Your task to perform on an android device: Go to Amazon Image 0: 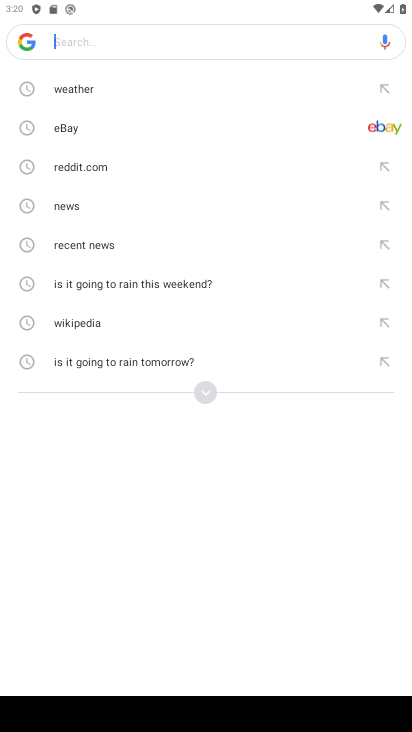
Step 0: press home button
Your task to perform on an android device: Go to Amazon Image 1: 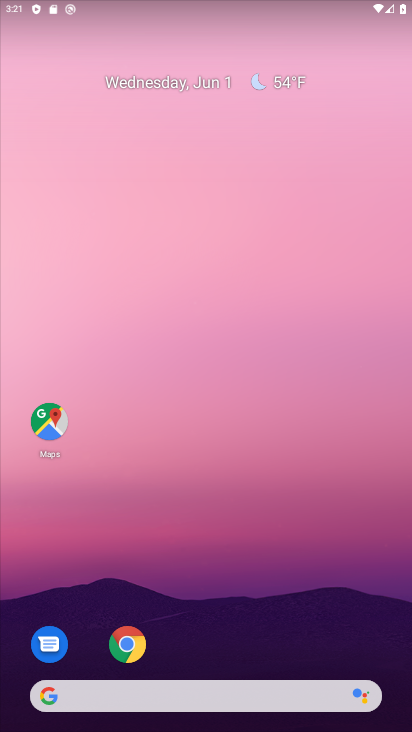
Step 1: click (131, 637)
Your task to perform on an android device: Go to Amazon Image 2: 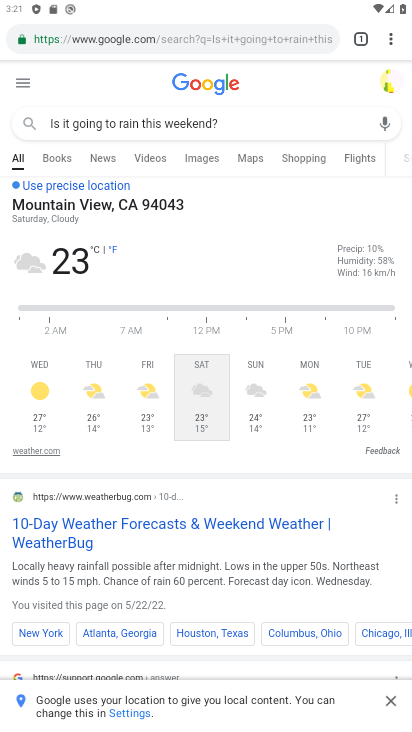
Step 2: click (361, 39)
Your task to perform on an android device: Go to Amazon Image 3: 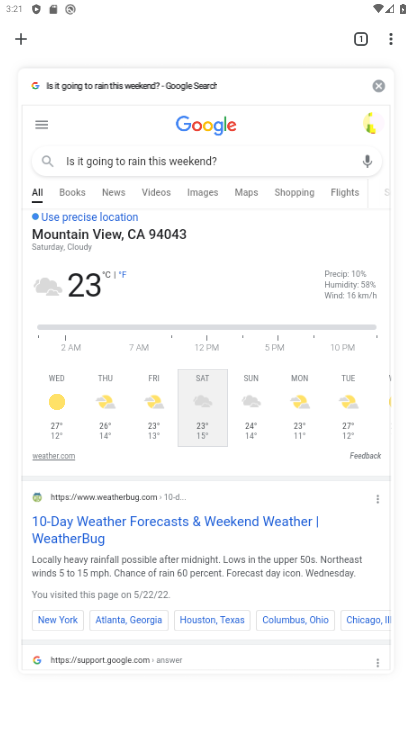
Step 3: click (17, 43)
Your task to perform on an android device: Go to Amazon Image 4: 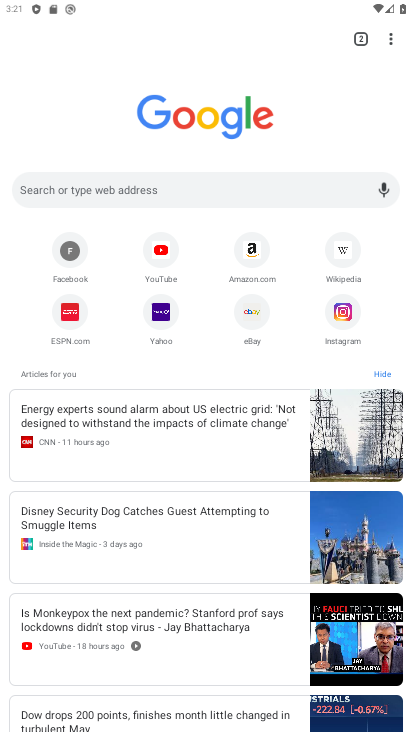
Step 4: click (245, 274)
Your task to perform on an android device: Go to Amazon Image 5: 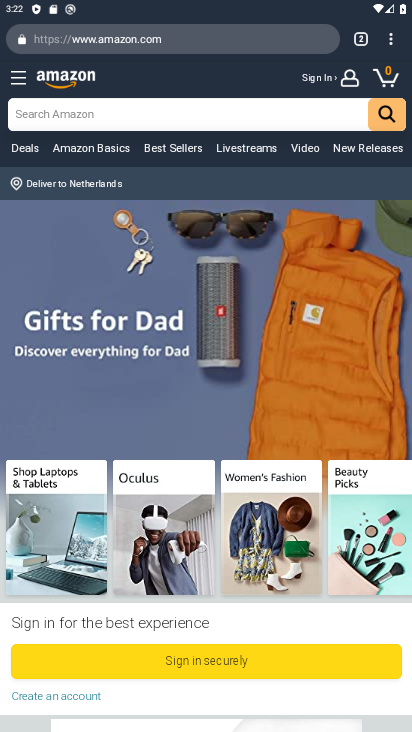
Step 5: task complete